Your task to perform on an android device: turn off priority inbox in the gmail app Image 0: 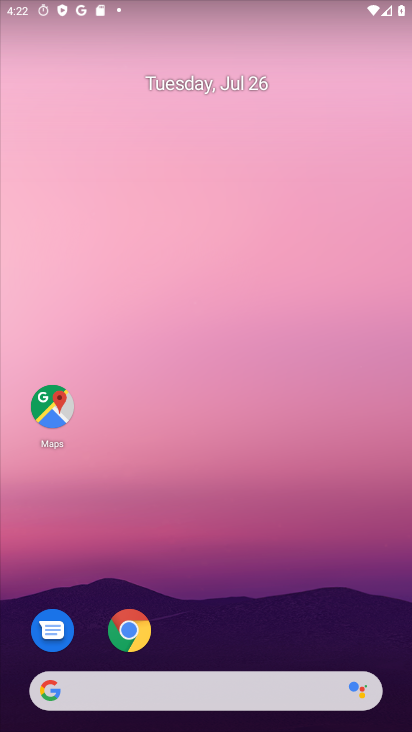
Step 0: click (252, 23)
Your task to perform on an android device: turn off priority inbox in the gmail app Image 1: 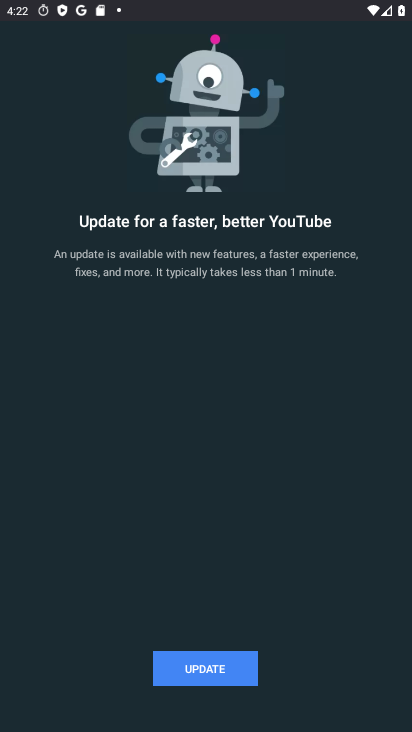
Step 1: press home button
Your task to perform on an android device: turn off priority inbox in the gmail app Image 2: 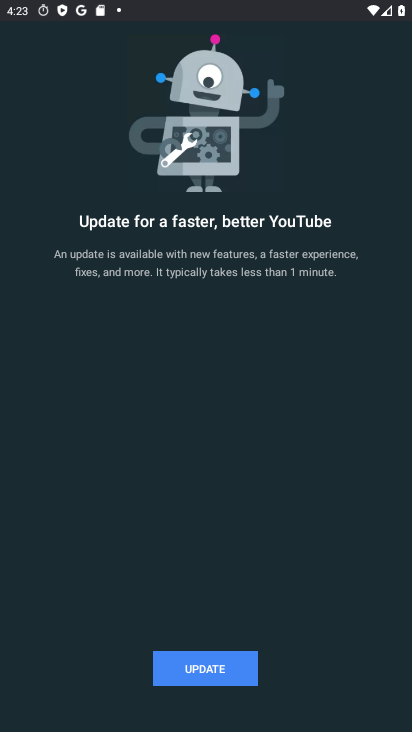
Step 2: press home button
Your task to perform on an android device: turn off priority inbox in the gmail app Image 3: 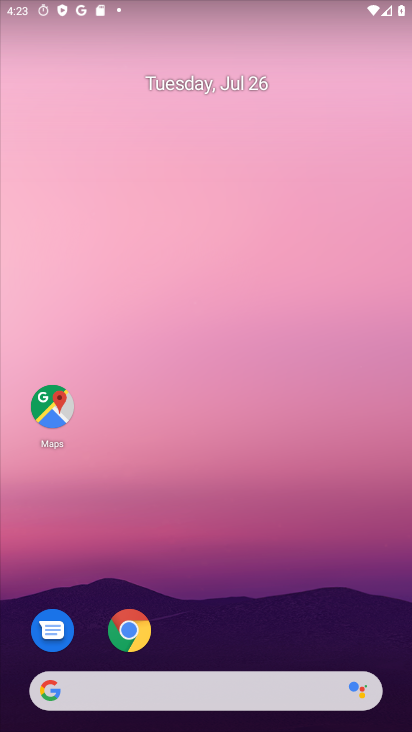
Step 3: drag from (299, 616) to (173, 85)
Your task to perform on an android device: turn off priority inbox in the gmail app Image 4: 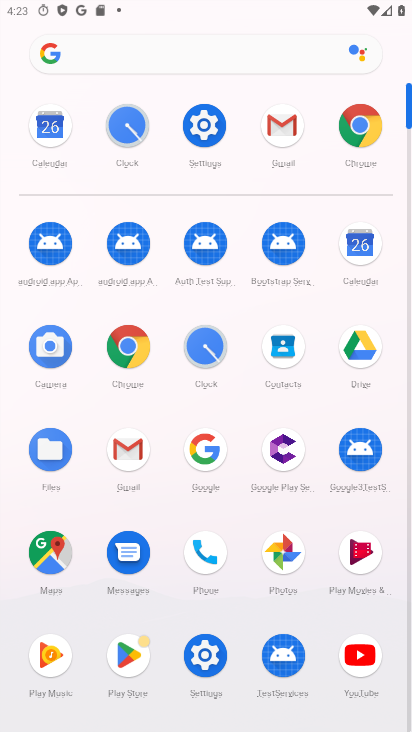
Step 4: click (272, 118)
Your task to perform on an android device: turn off priority inbox in the gmail app Image 5: 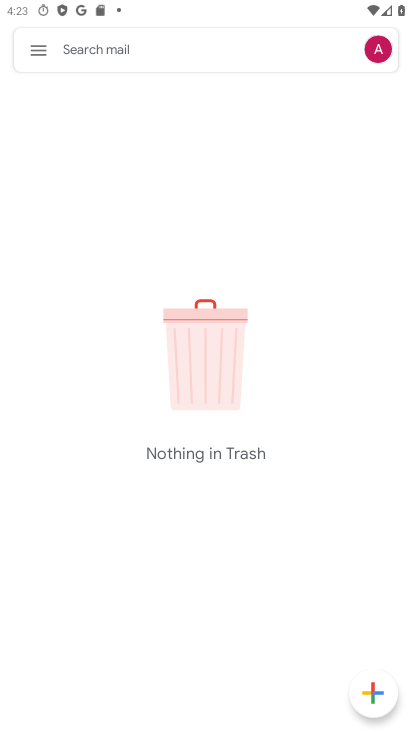
Step 5: click (44, 51)
Your task to perform on an android device: turn off priority inbox in the gmail app Image 6: 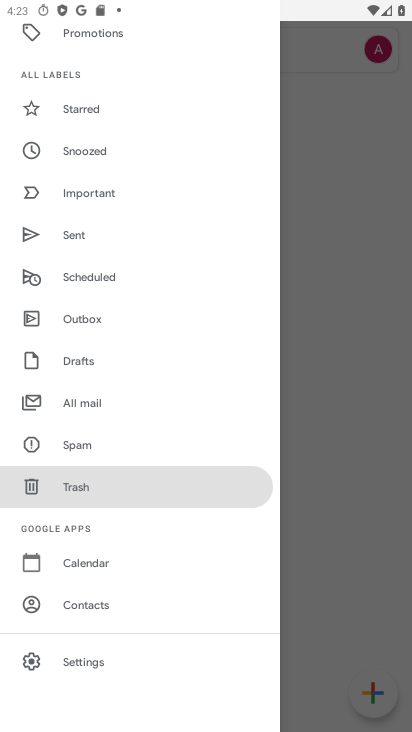
Step 6: click (105, 663)
Your task to perform on an android device: turn off priority inbox in the gmail app Image 7: 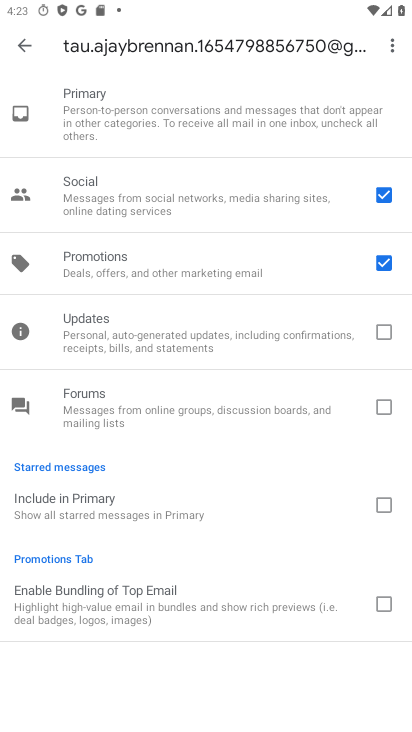
Step 7: click (25, 43)
Your task to perform on an android device: turn off priority inbox in the gmail app Image 8: 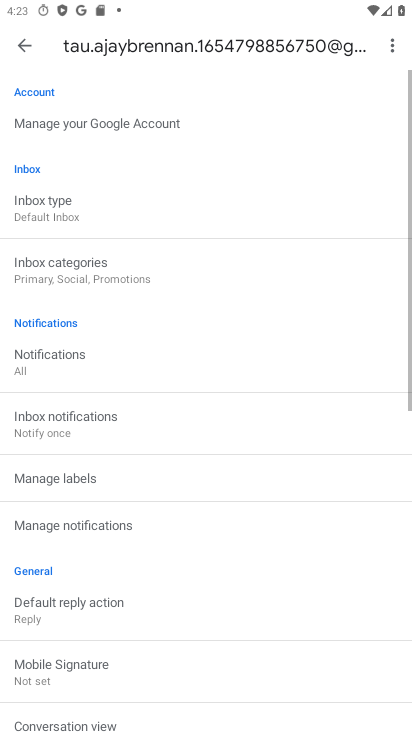
Step 8: drag from (122, 149) to (212, 525)
Your task to perform on an android device: turn off priority inbox in the gmail app Image 9: 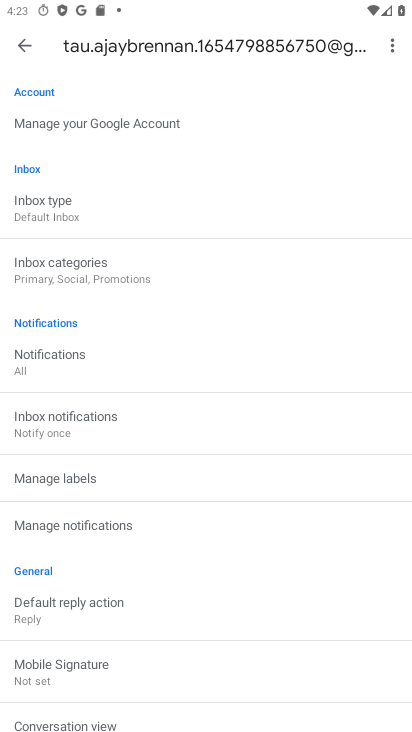
Step 9: click (52, 214)
Your task to perform on an android device: turn off priority inbox in the gmail app Image 10: 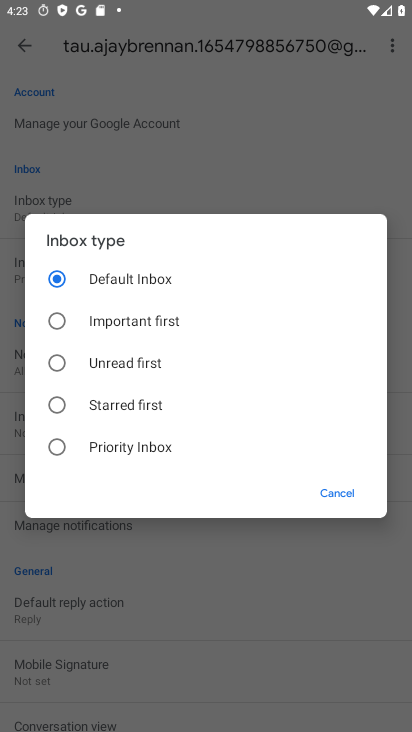
Step 10: task complete